Your task to perform on an android device: What is the recent news? Image 0: 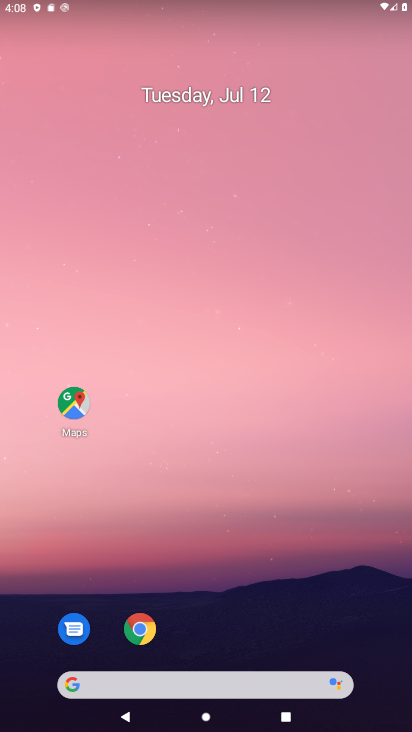
Step 0: press home button
Your task to perform on an android device: What is the recent news? Image 1: 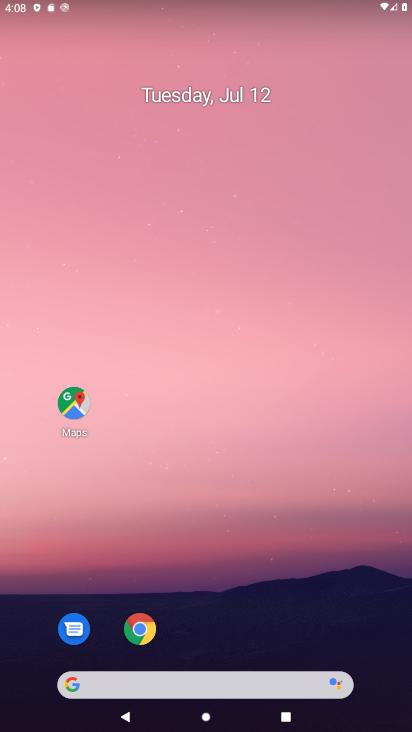
Step 1: click (68, 692)
Your task to perform on an android device: What is the recent news? Image 2: 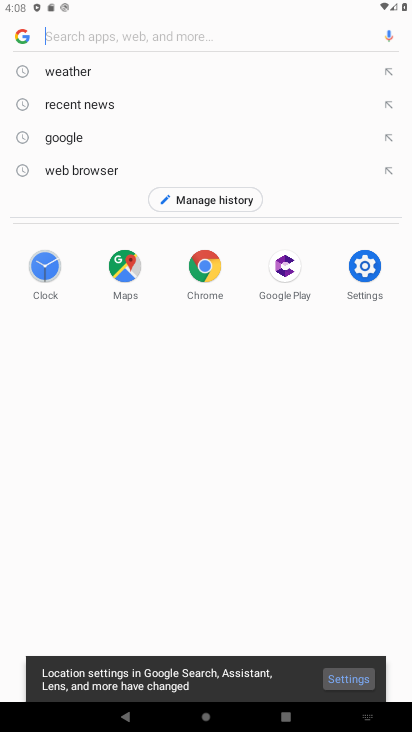
Step 2: click (71, 109)
Your task to perform on an android device: What is the recent news? Image 3: 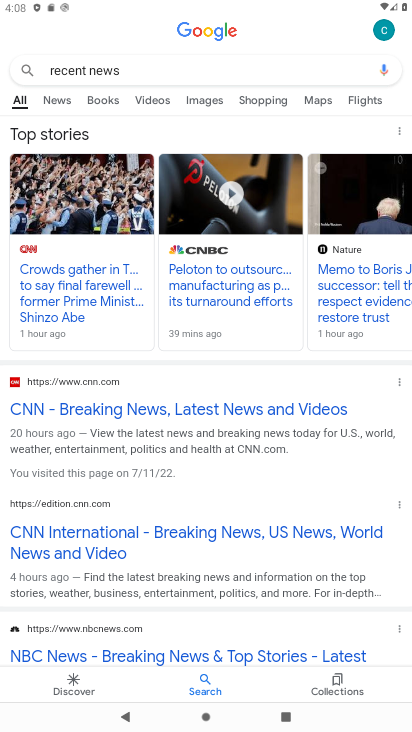
Step 3: task complete